Your task to perform on an android device: toggle airplane mode Image 0: 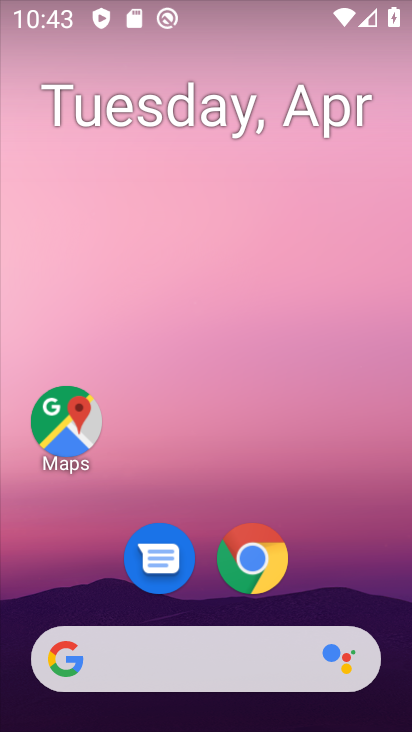
Step 0: drag from (267, 19) to (285, 480)
Your task to perform on an android device: toggle airplane mode Image 1: 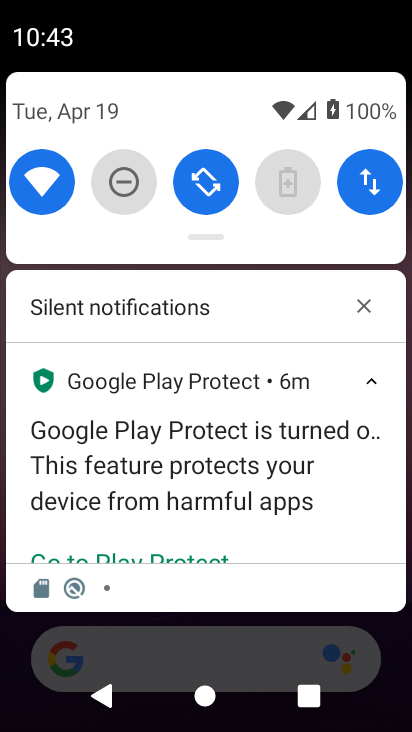
Step 1: drag from (247, 216) to (306, 497)
Your task to perform on an android device: toggle airplane mode Image 2: 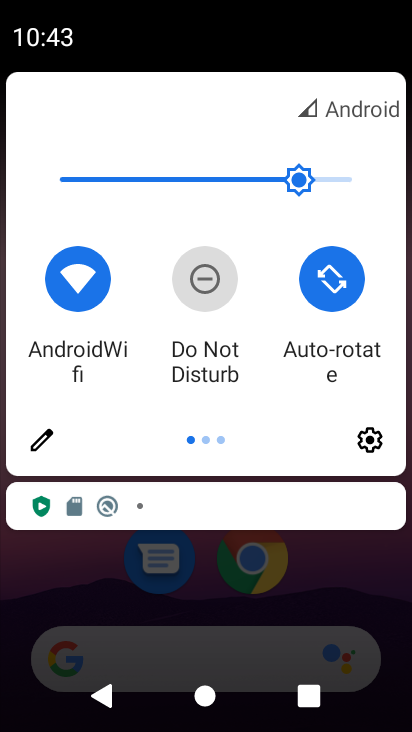
Step 2: drag from (373, 258) to (17, 225)
Your task to perform on an android device: toggle airplane mode Image 3: 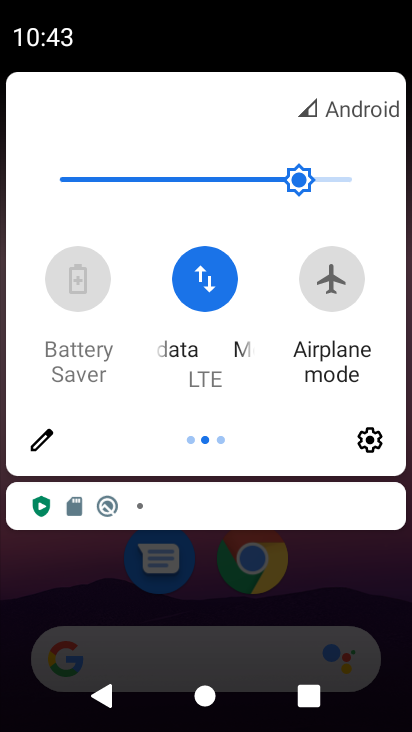
Step 3: click (332, 284)
Your task to perform on an android device: toggle airplane mode Image 4: 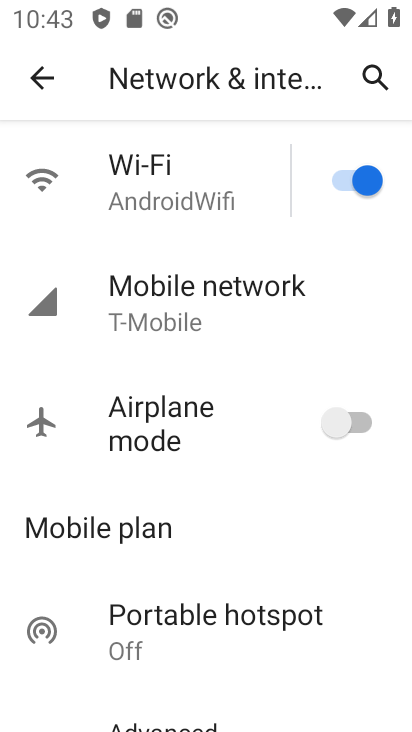
Step 4: click (363, 421)
Your task to perform on an android device: toggle airplane mode Image 5: 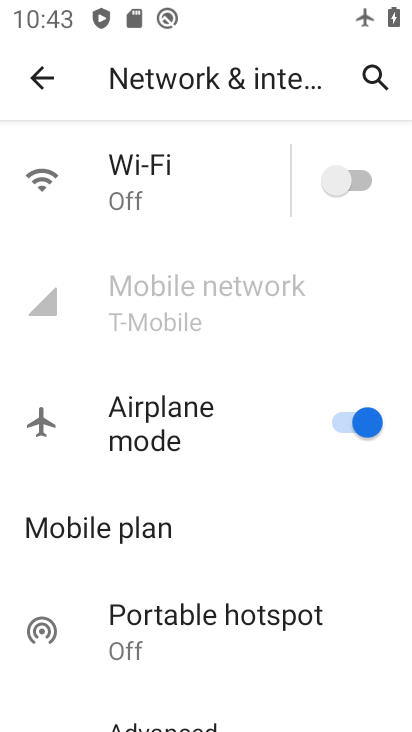
Step 5: task complete